Your task to perform on an android device: View the shopping cart on ebay. Search for "logitech g933" on ebay, select the first entry, and add it to the cart. Image 0: 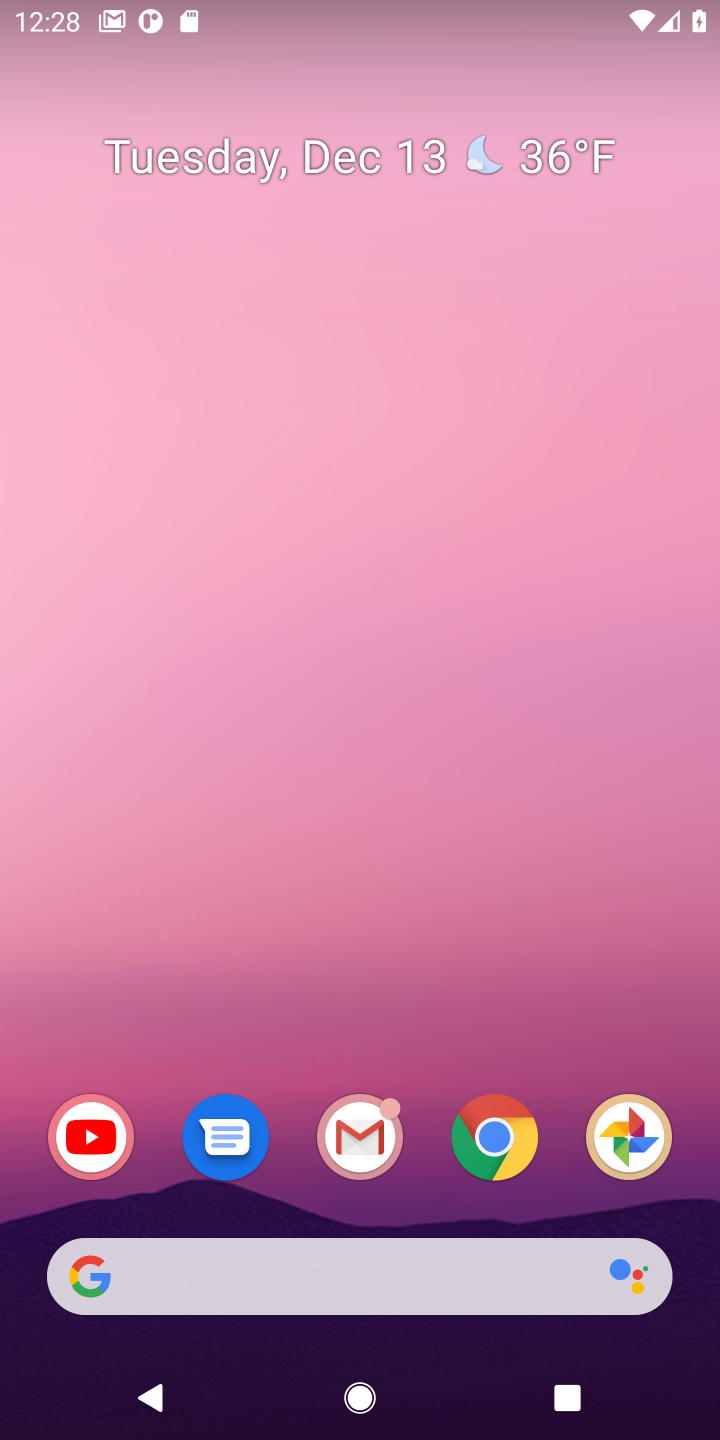
Step 0: click (415, 1263)
Your task to perform on an android device: View the shopping cart on ebay. Search for "logitech g933" on ebay, select the first entry, and add it to the cart. Image 1: 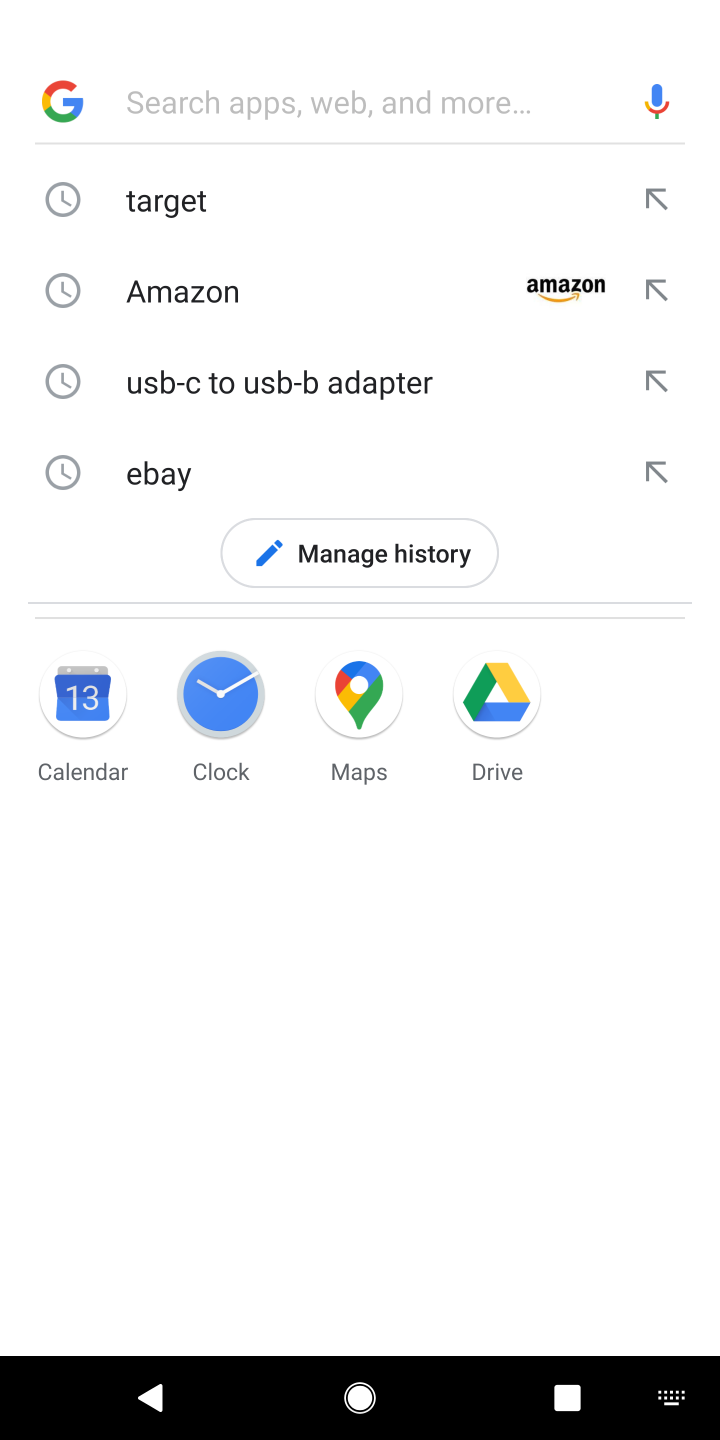
Step 1: click (100, 451)
Your task to perform on an android device: View the shopping cart on ebay. Search for "logitech g933" on ebay, select the first entry, and add it to the cart. Image 2: 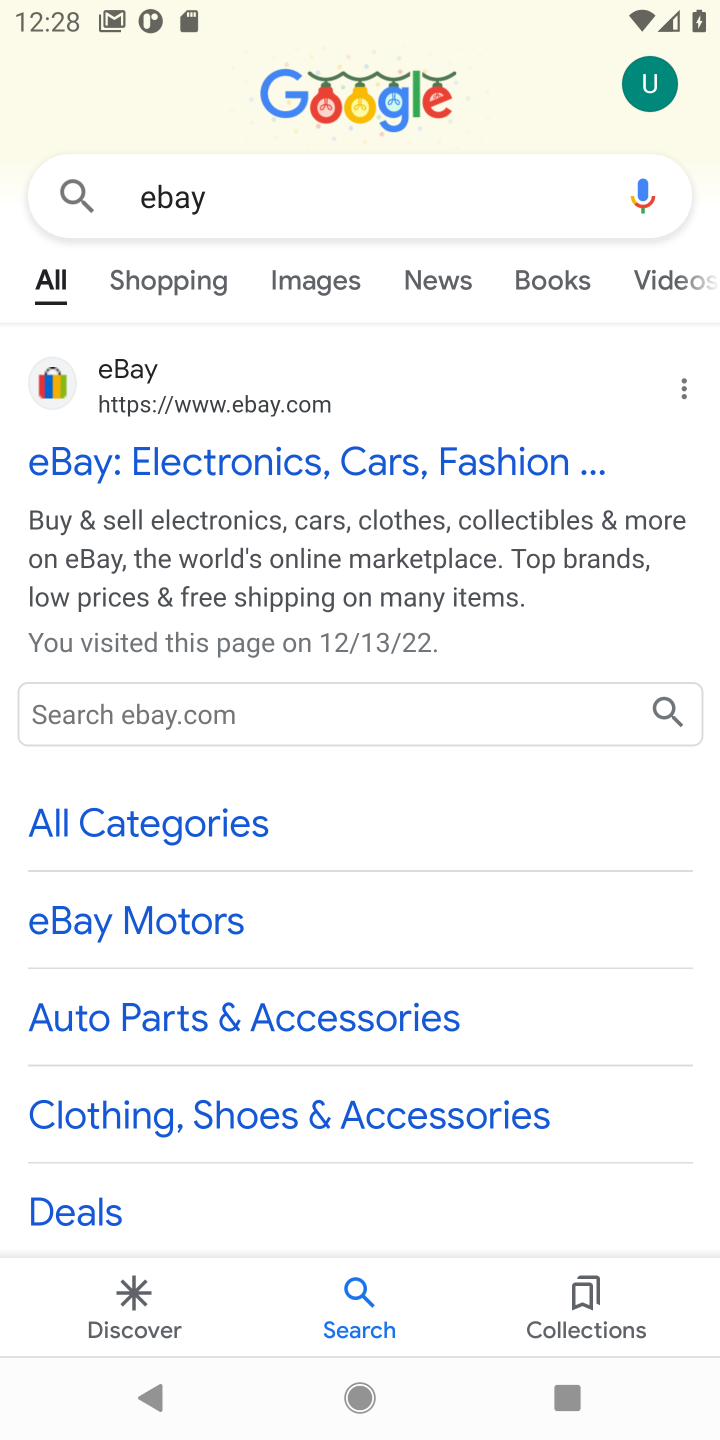
Step 2: click (190, 430)
Your task to perform on an android device: View the shopping cart on ebay. Search for "logitech g933" on ebay, select the first entry, and add it to the cart. Image 3: 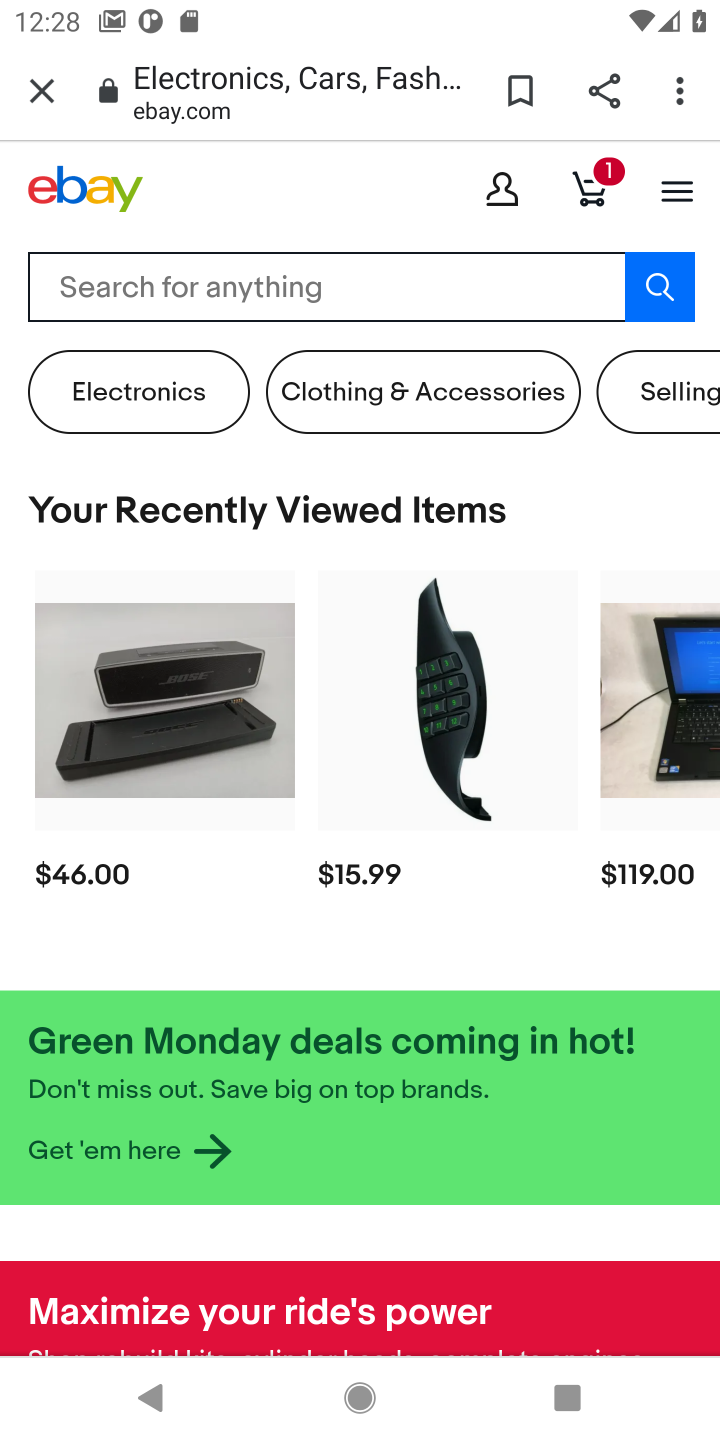
Step 3: click (237, 276)
Your task to perform on an android device: View the shopping cart on ebay. Search for "logitech g933" on ebay, select the first entry, and add it to the cart. Image 4: 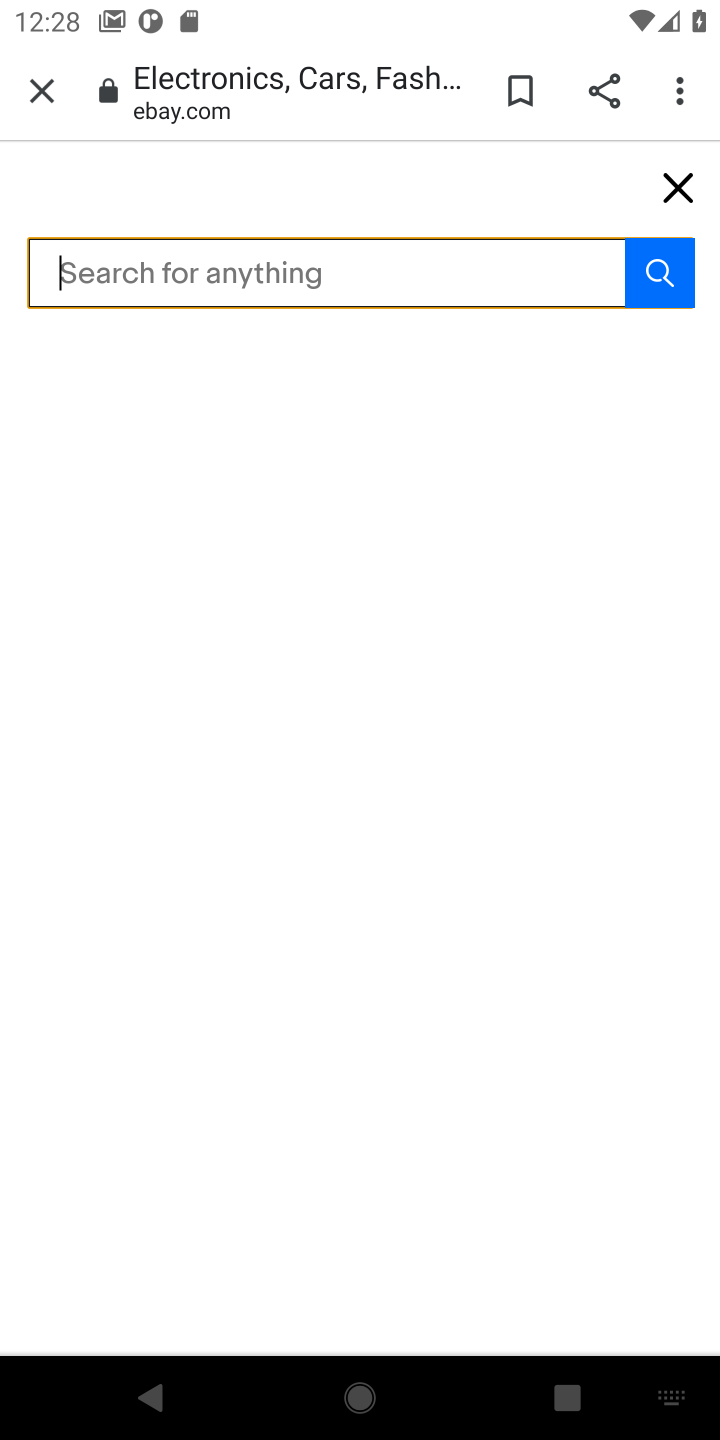
Step 4: type "logitech g933"
Your task to perform on an android device: View the shopping cart on ebay. Search for "logitech g933" on ebay, select the first entry, and add it to the cart. Image 5: 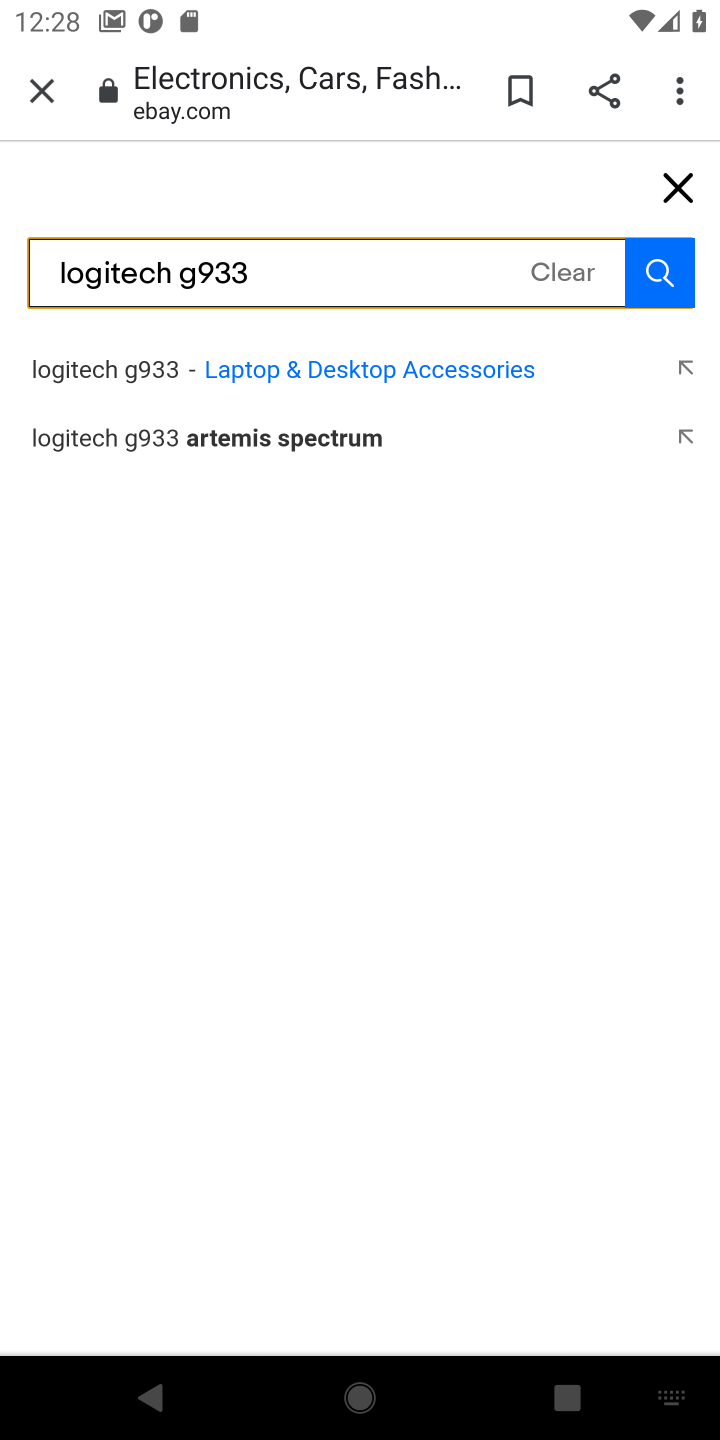
Step 5: click (682, 271)
Your task to perform on an android device: View the shopping cart on ebay. Search for "logitech g933" on ebay, select the first entry, and add it to the cart. Image 6: 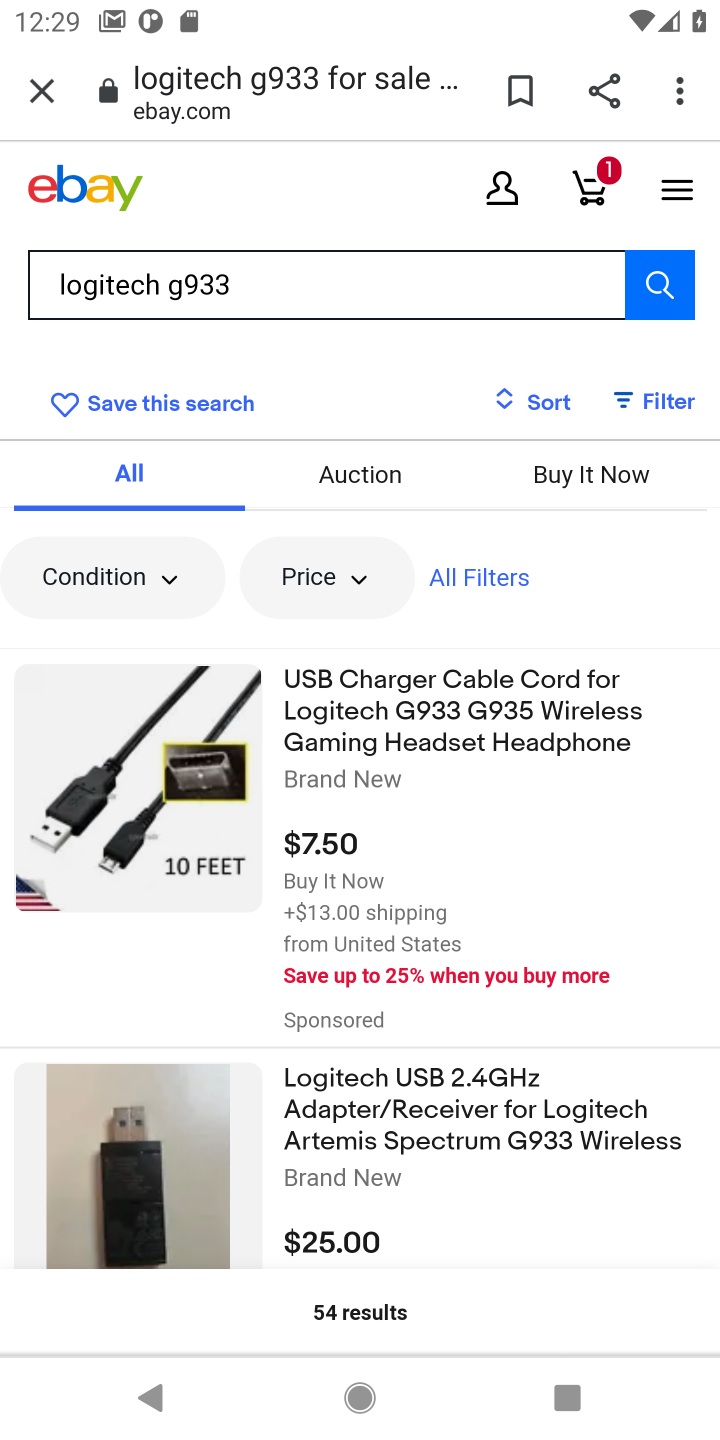
Step 6: click (363, 751)
Your task to perform on an android device: View the shopping cart on ebay. Search for "logitech g933" on ebay, select the first entry, and add it to the cart. Image 7: 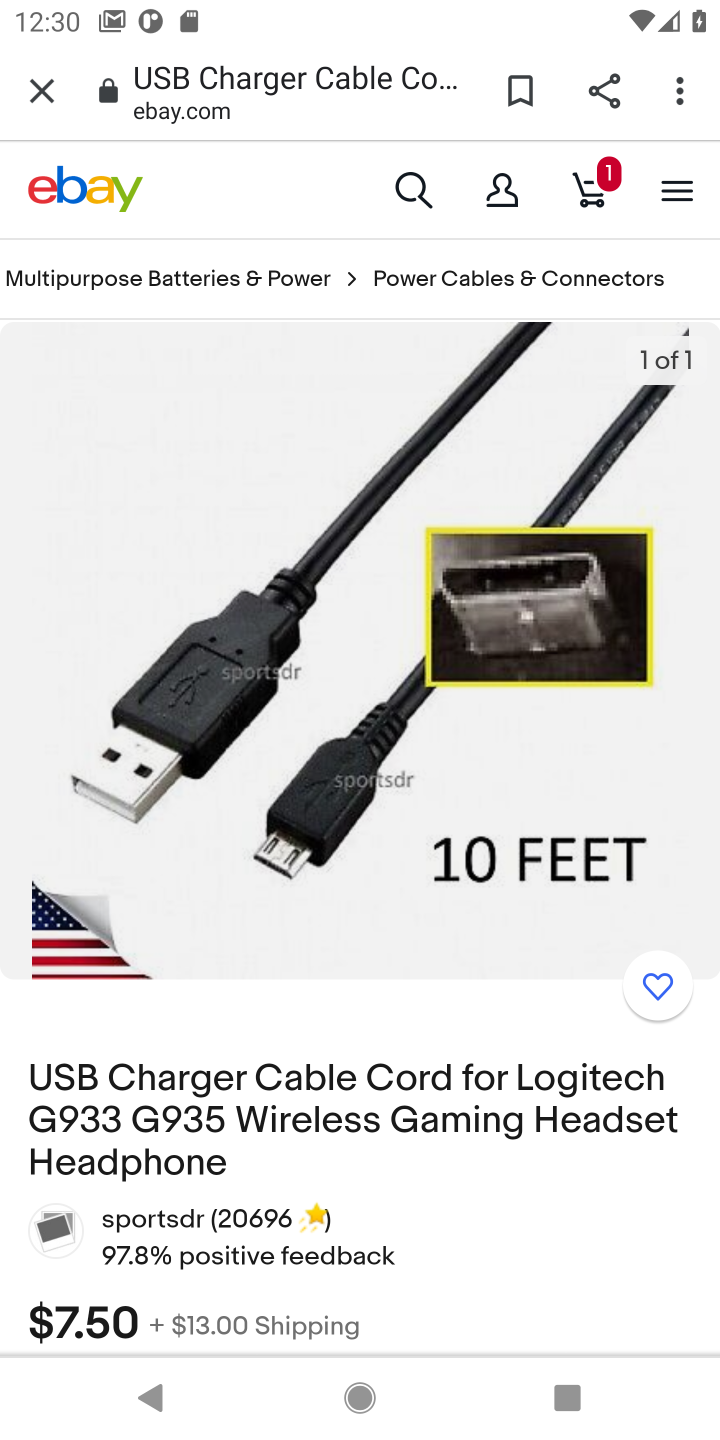
Step 7: drag from (312, 1085) to (569, 250)
Your task to perform on an android device: View the shopping cart on ebay. Search for "logitech g933" on ebay, select the first entry, and add it to the cart. Image 8: 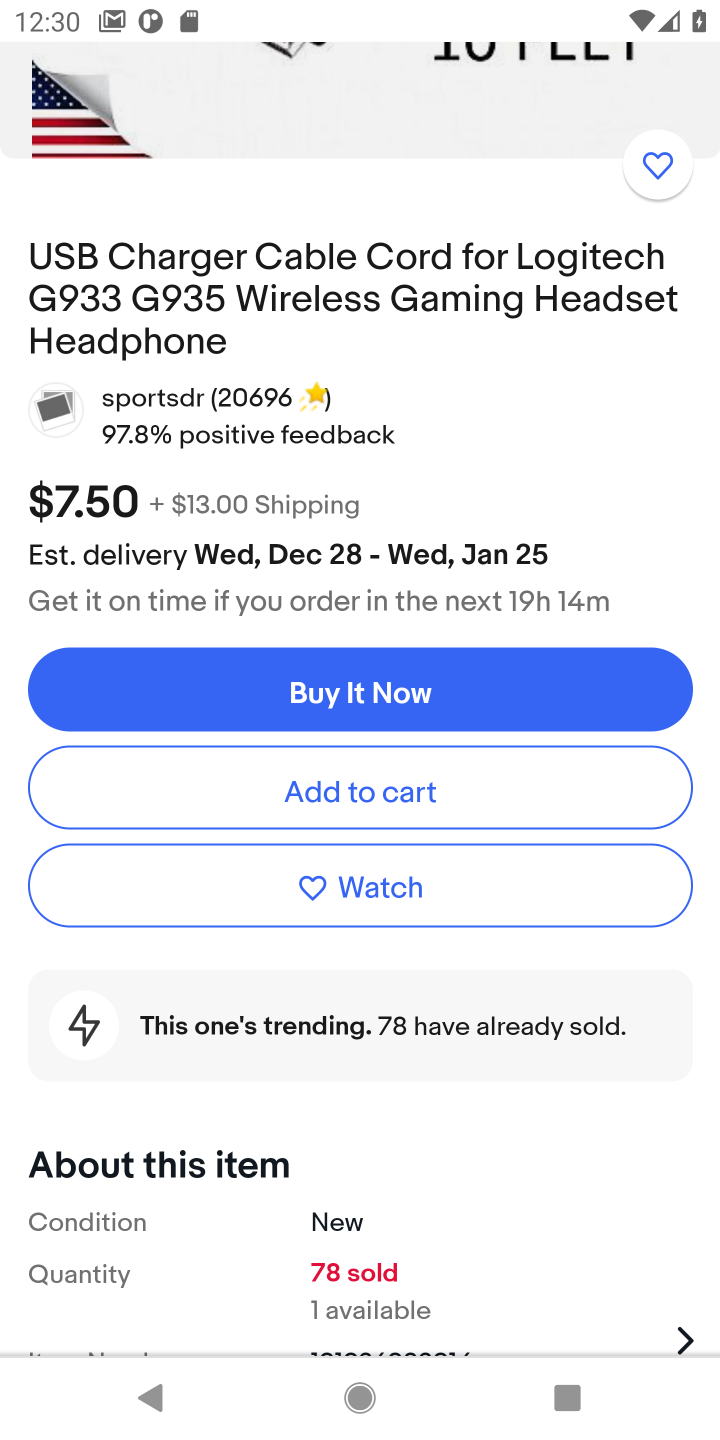
Step 8: click (386, 809)
Your task to perform on an android device: View the shopping cart on ebay. Search for "logitech g933" on ebay, select the first entry, and add it to the cart. Image 9: 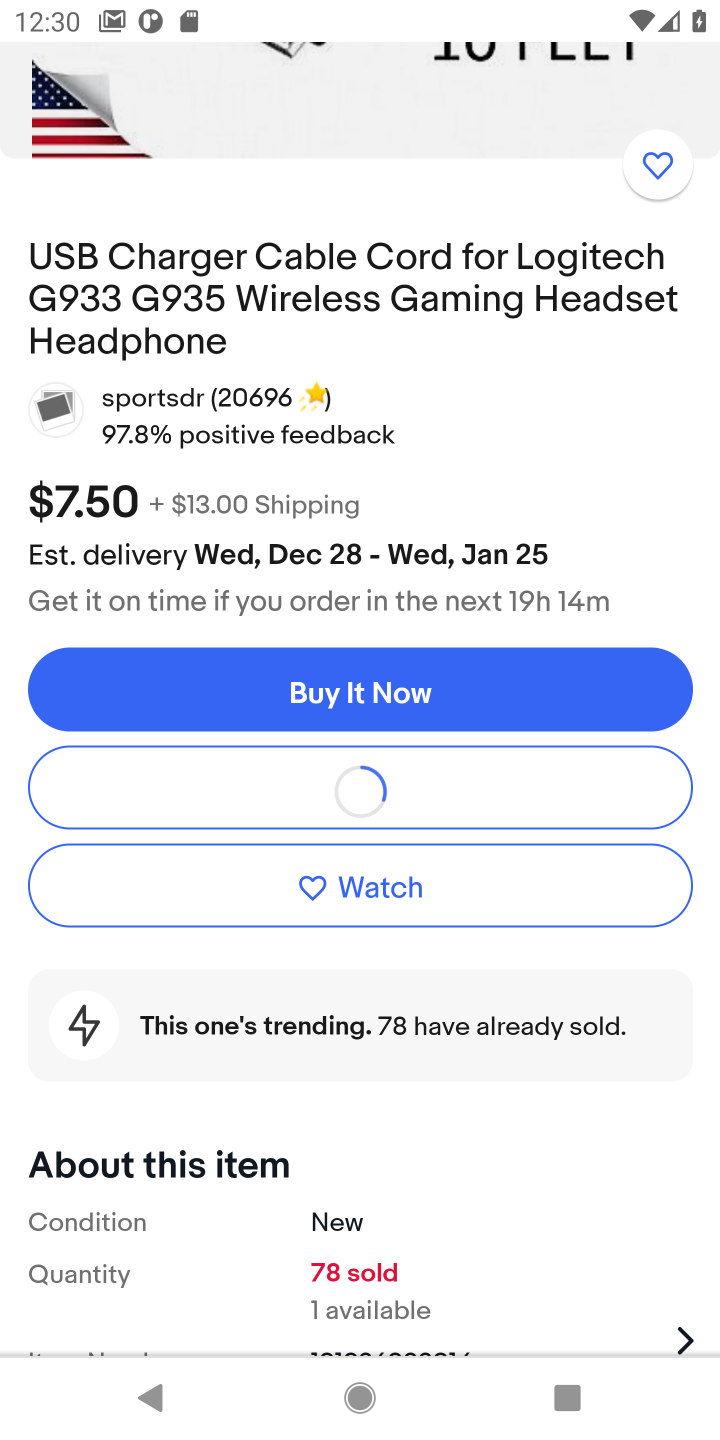
Step 9: task complete